Your task to perform on an android device: toggle sleep mode Image 0: 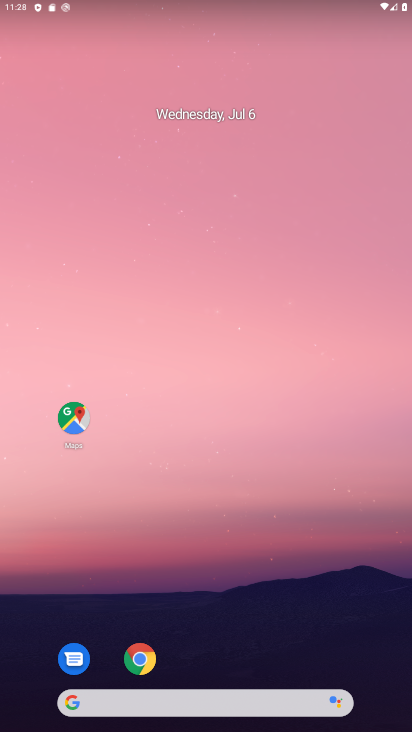
Step 0: drag from (280, 654) to (338, 244)
Your task to perform on an android device: toggle sleep mode Image 1: 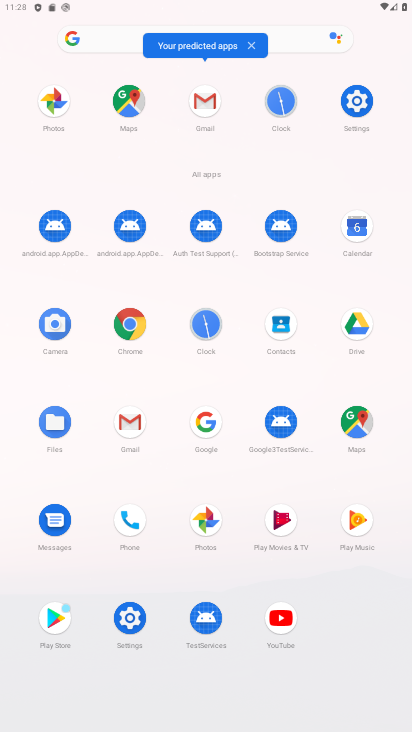
Step 1: click (142, 615)
Your task to perform on an android device: toggle sleep mode Image 2: 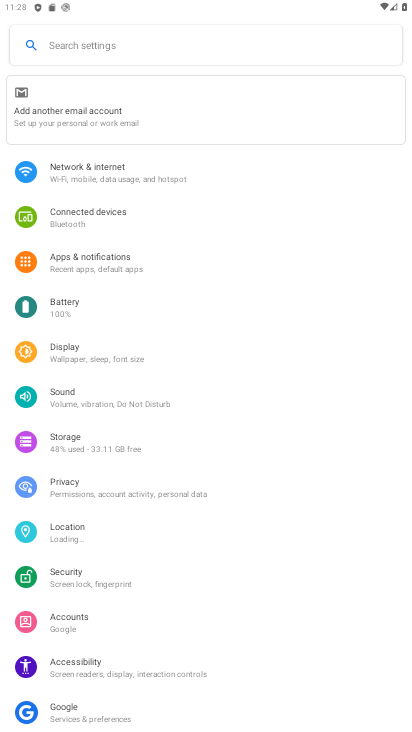
Step 2: click (132, 363)
Your task to perform on an android device: toggle sleep mode Image 3: 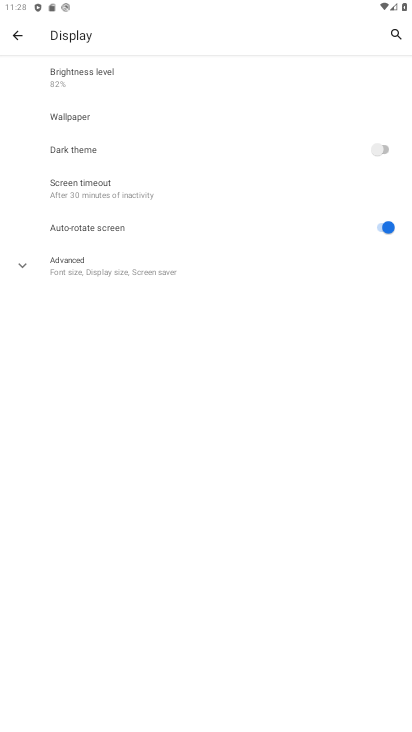
Step 3: click (177, 273)
Your task to perform on an android device: toggle sleep mode Image 4: 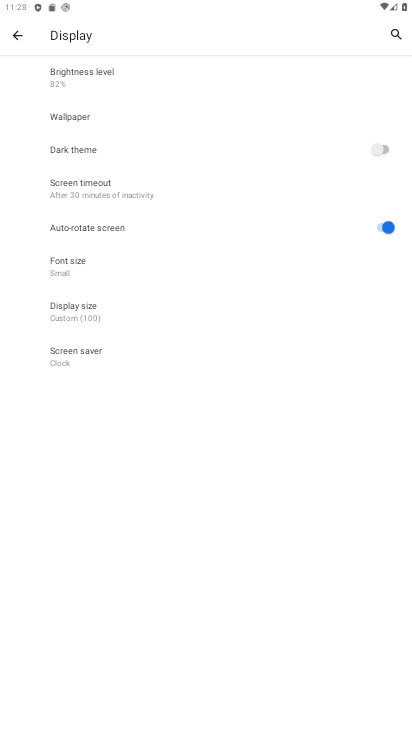
Step 4: task complete